Your task to perform on an android device: snooze an email in the gmail app Image 0: 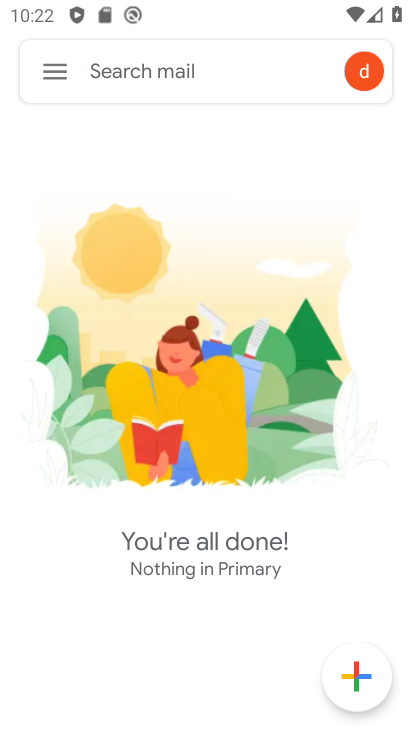
Step 0: press home button
Your task to perform on an android device: snooze an email in the gmail app Image 1: 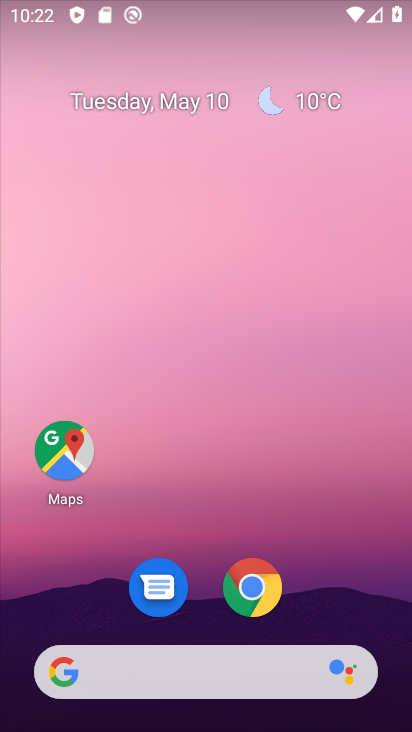
Step 1: drag from (188, 645) to (195, 15)
Your task to perform on an android device: snooze an email in the gmail app Image 2: 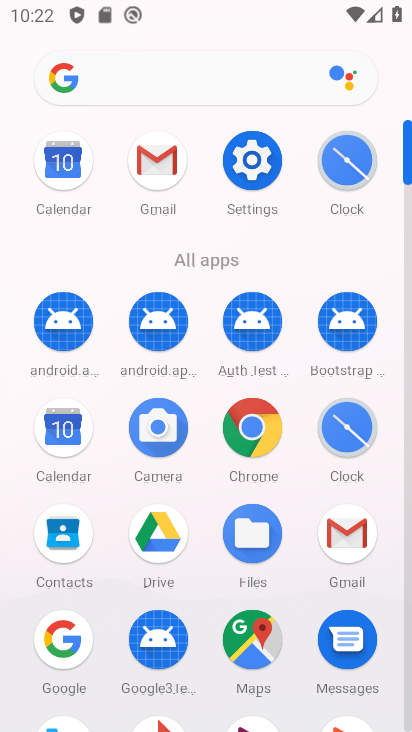
Step 2: click (340, 544)
Your task to perform on an android device: snooze an email in the gmail app Image 3: 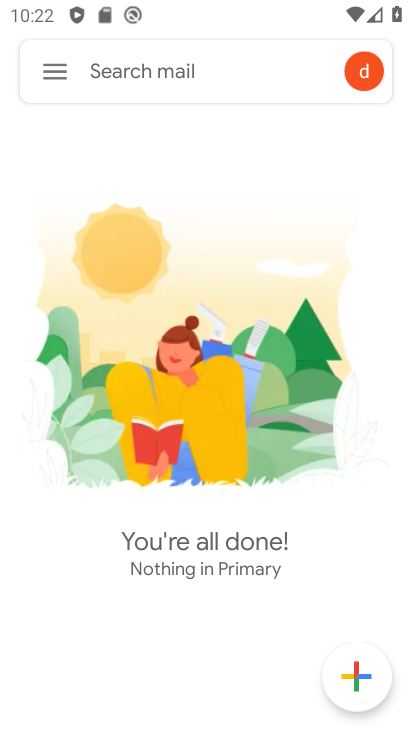
Step 3: click (59, 68)
Your task to perform on an android device: snooze an email in the gmail app Image 4: 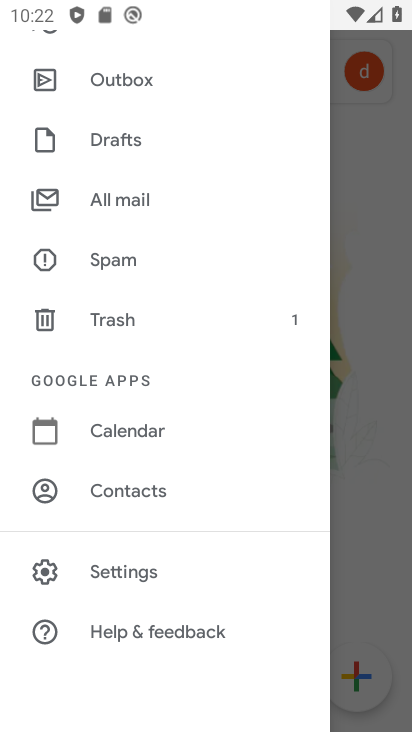
Step 4: click (118, 218)
Your task to perform on an android device: snooze an email in the gmail app Image 5: 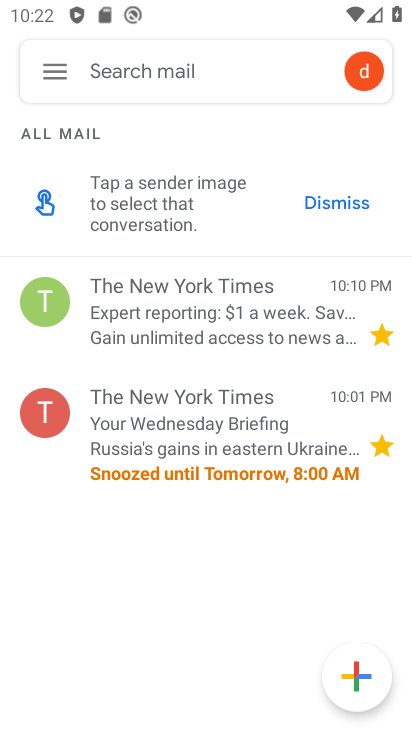
Step 5: drag from (144, 192) to (155, 398)
Your task to perform on an android device: snooze an email in the gmail app Image 6: 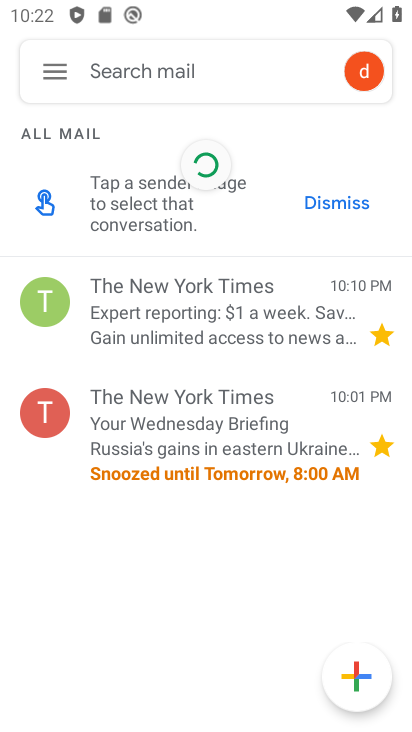
Step 6: click (159, 283)
Your task to perform on an android device: snooze an email in the gmail app Image 7: 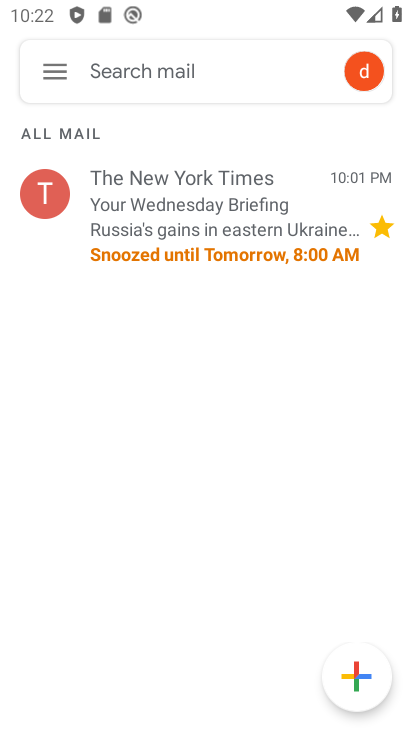
Step 7: click (271, 222)
Your task to perform on an android device: snooze an email in the gmail app Image 8: 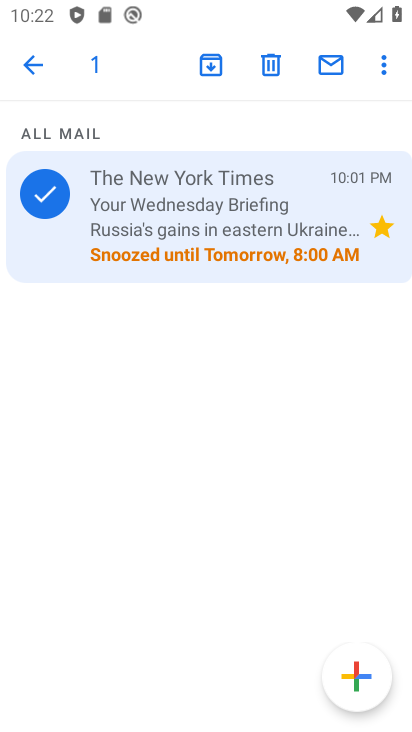
Step 8: click (379, 70)
Your task to perform on an android device: snooze an email in the gmail app Image 9: 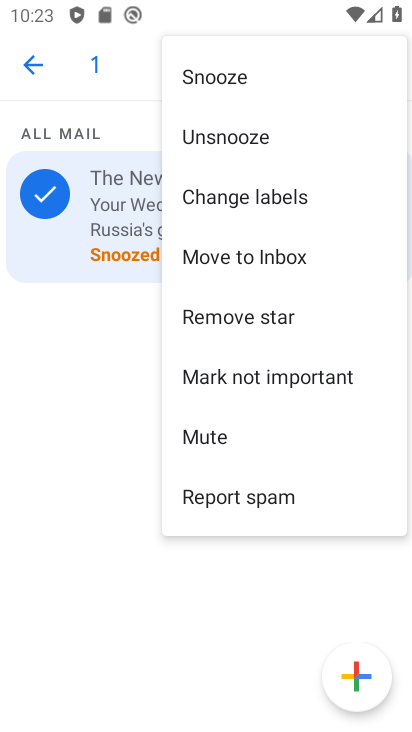
Step 9: click (226, 63)
Your task to perform on an android device: snooze an email in the gmail app Image 10: 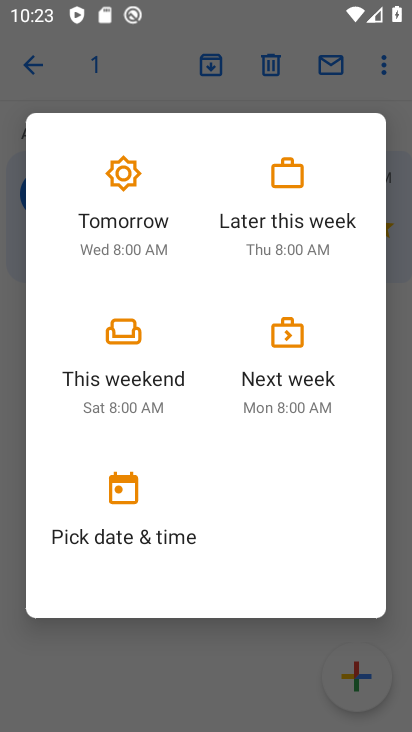
Step 10: click (285, 341)
Your task to perform on an android device: snooze an email in the gmail app Image 11: 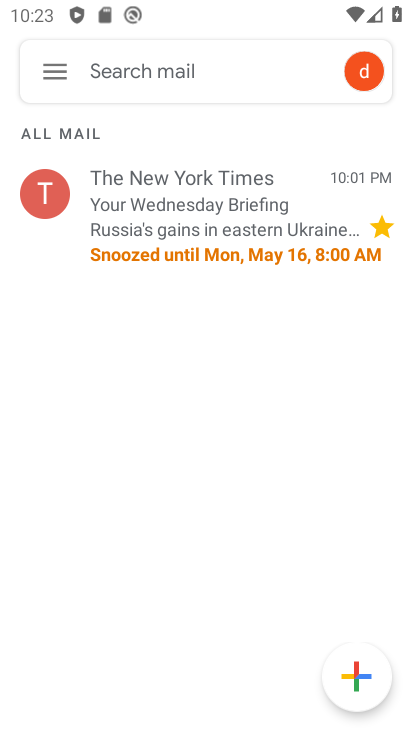
Step 11: task complete